Your task to perform on an android device: Open Yahoo.com Image 0: 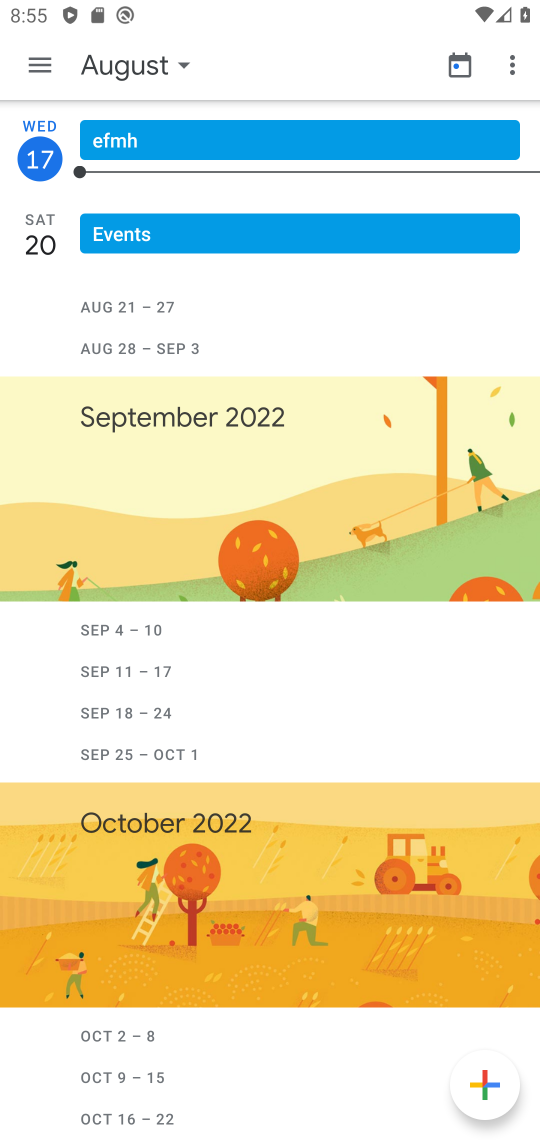
Step 0: press home button
Your task to perform on an android device: Open Yahoo.com Image 1: 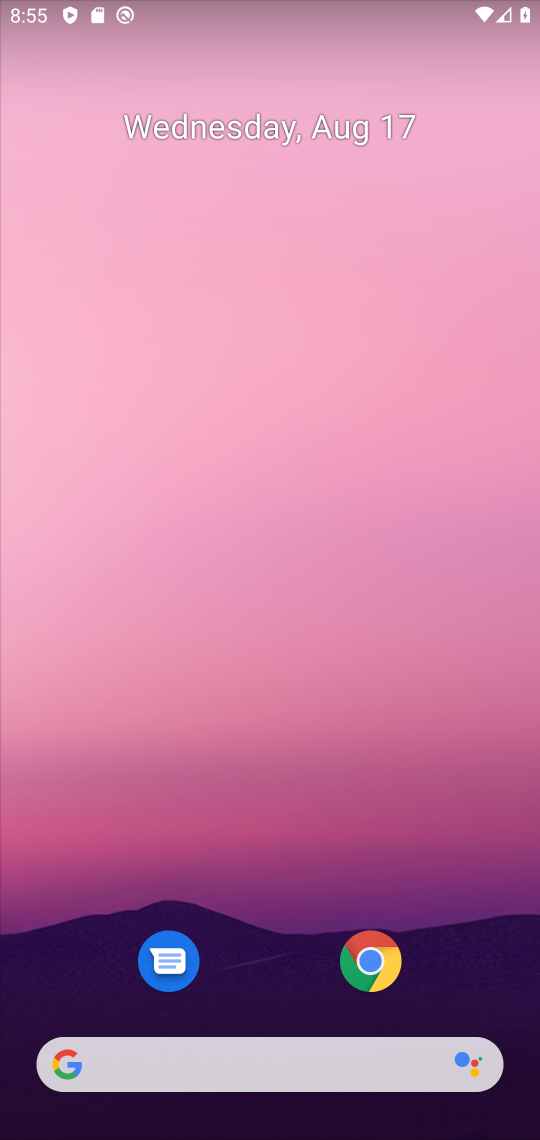
Step 1: drag from (247, 990) to (147, 33)
Your task to perform on an android device: Open Yahoo.com Image 2: 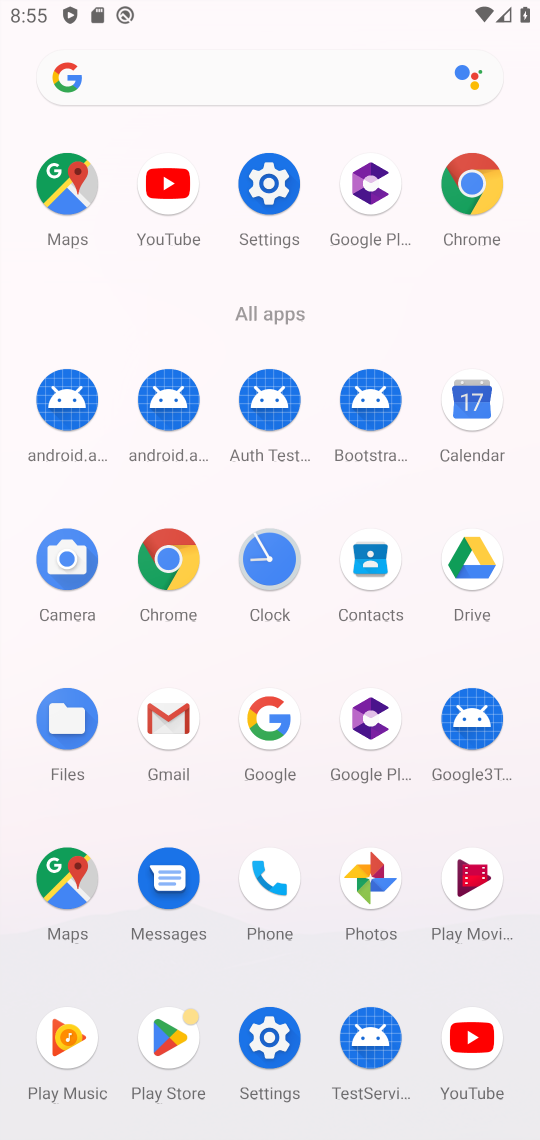
Step 2: click (166, 554)
Your task to perform on an android device: Open Yahoo.com Image 3: 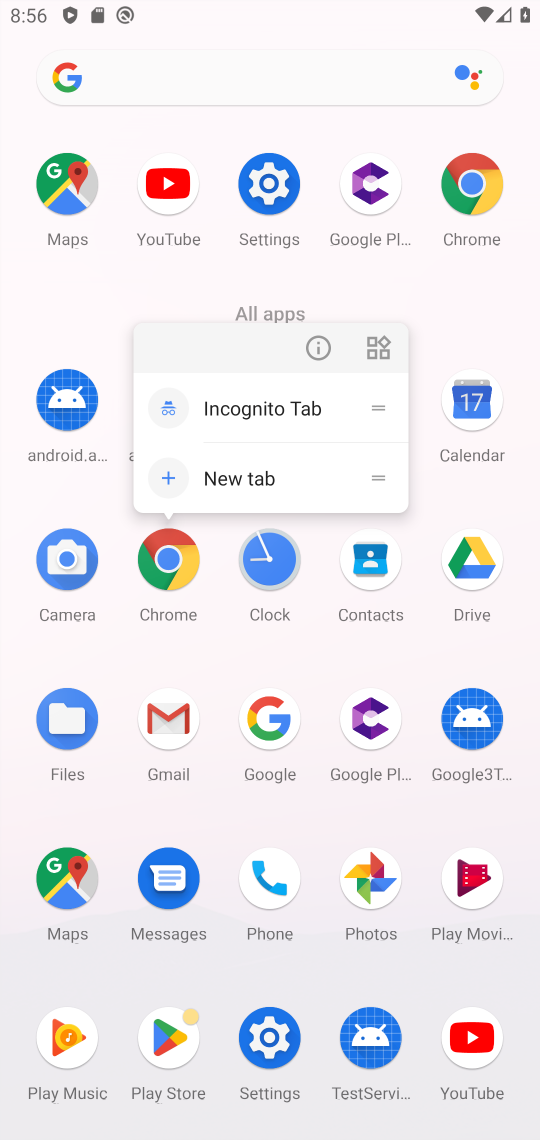
Step 3: click (164, 552)
Your task to perform on an android device: Open Yahoo.com Image 4: 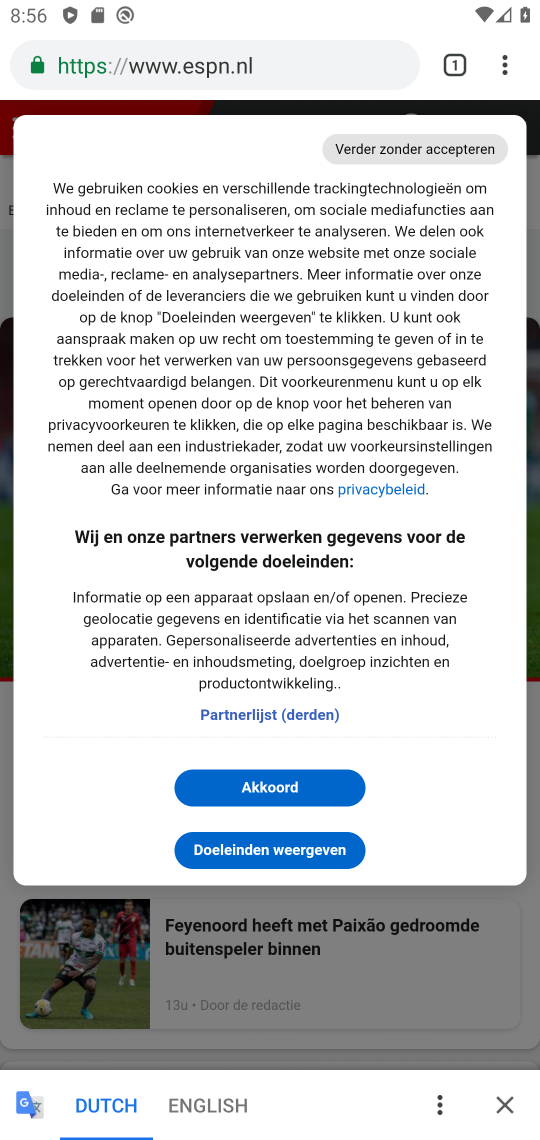
Step 4: click (307, 50)
Your task to perform on an android device: Open Yahoo.com Image 5: 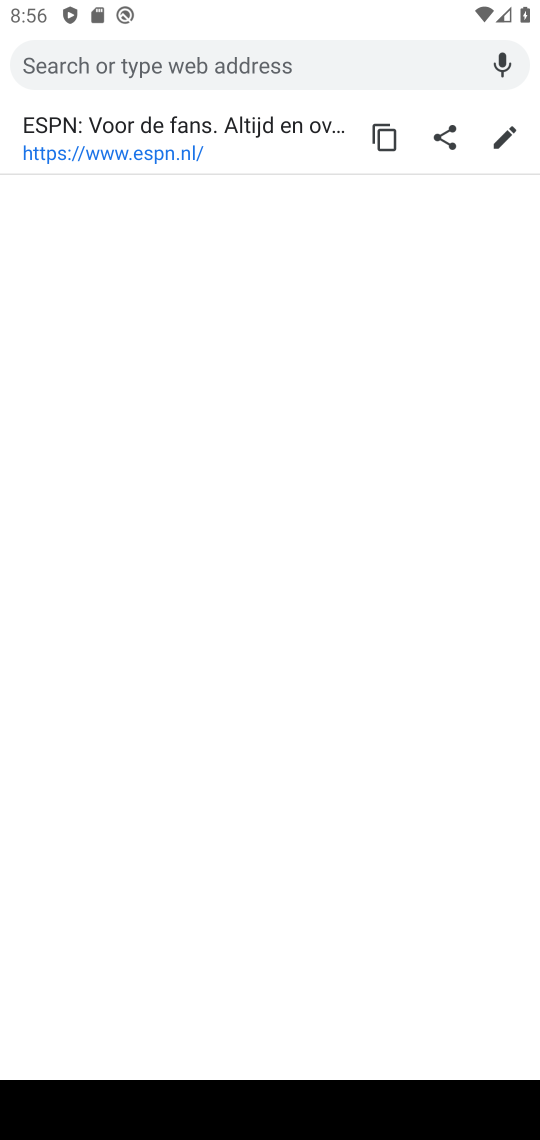
Step 5: type "yahoo.com"
Your task to perform on an android device: Open Yahoo.com Image 6: 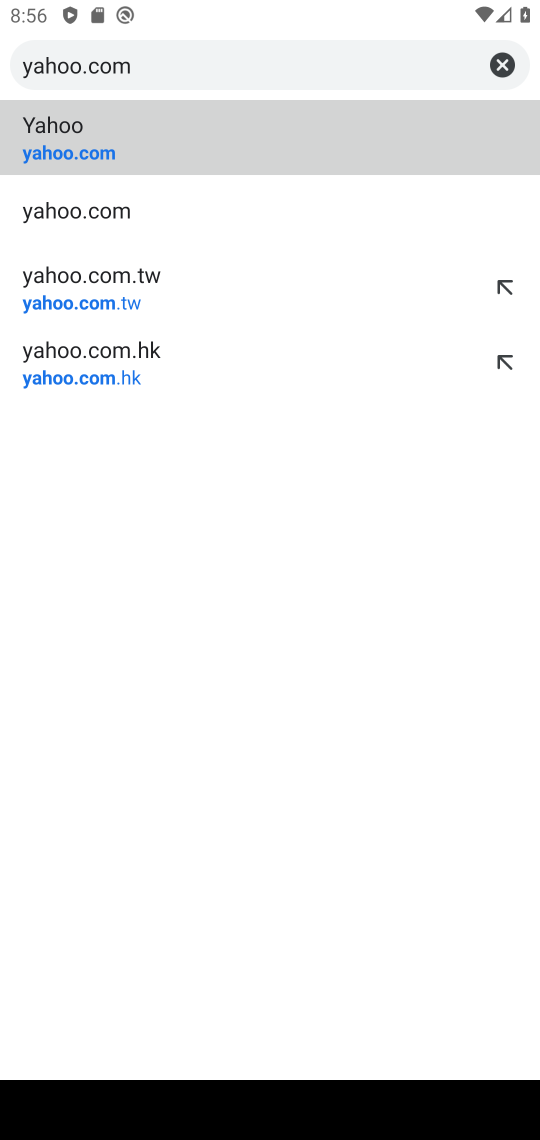
Step 6: click (65, 153)
Your task to perform on an android device: Open Yahoo.com Image 7: 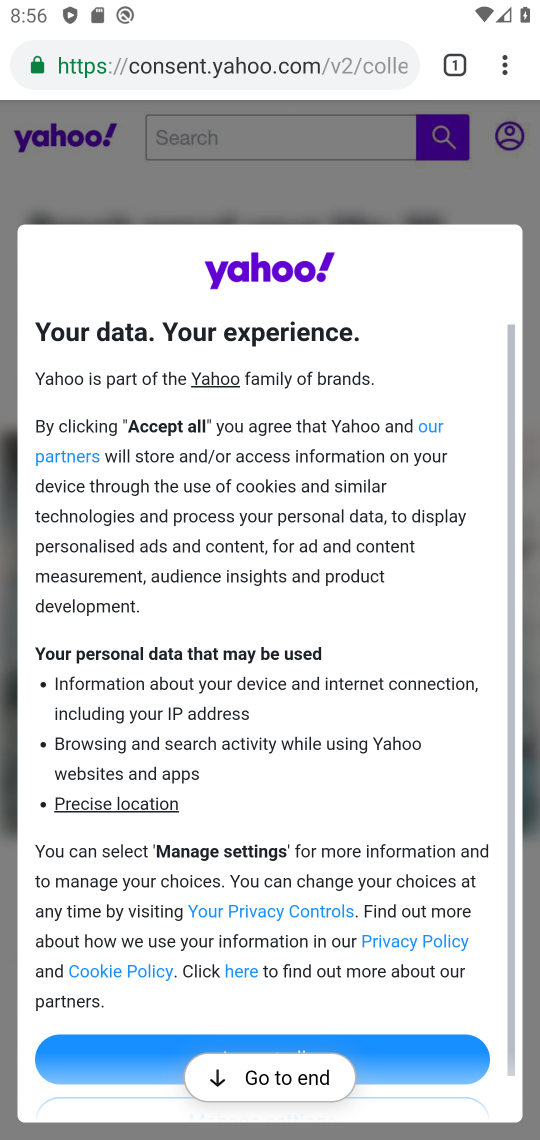
Step 7: task complete